Your task to perform on an android device: turn off translation in the chrome app Image 0: 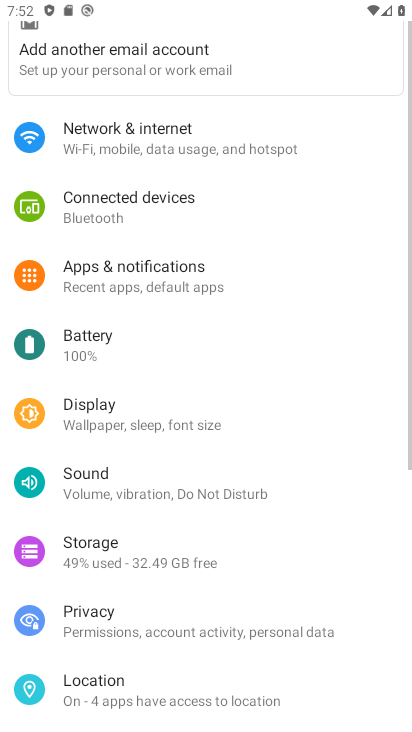
Step 0: press home button
Your task to perform on an android device: turn off translation in the chrome app Image 1: 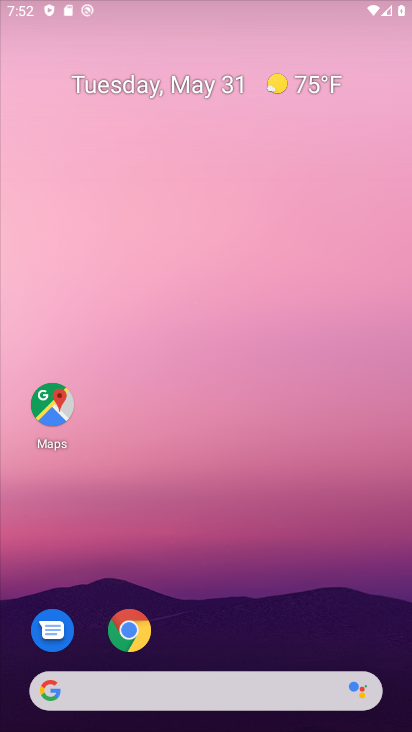
Step 1: drag from (209, 649) to (222, 401)
Your task to perform on an android device: turn off translation in the chrome app Image 2: 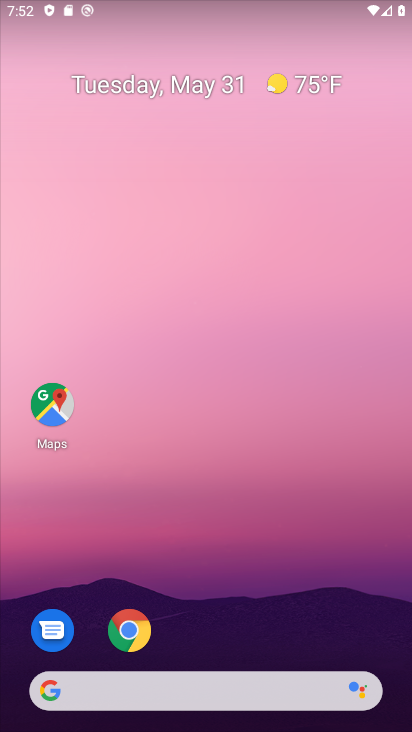
Step 2: drag from (197, 637) to (228, 201)
Your task to perform on an android device: turn off translation in the chrome app Image 3: 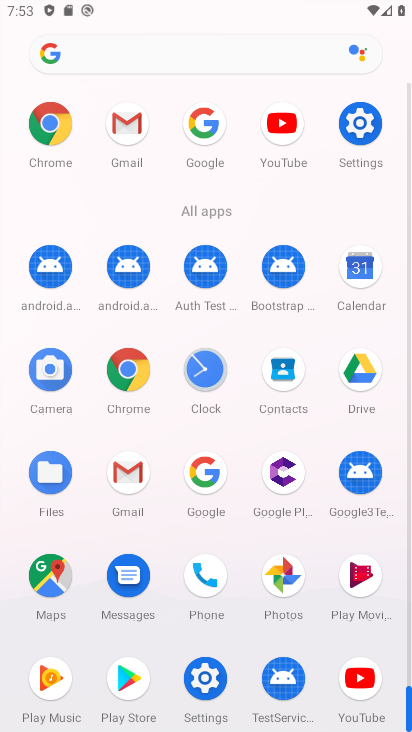
Step 3: click (144, 392)
Your task to perform on an android device: turn off translation in the chrome app Image 4: 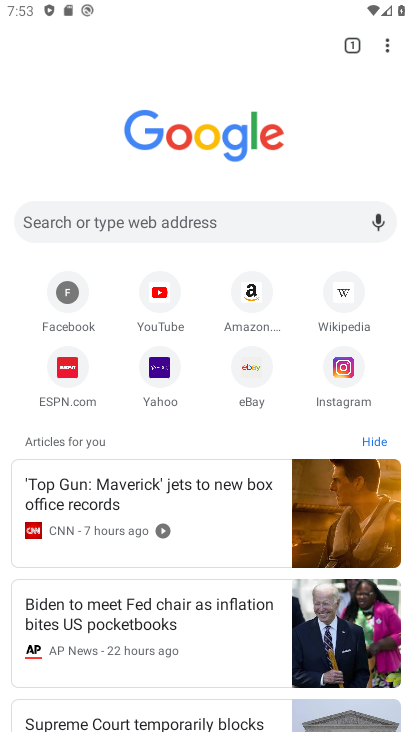
Step 4: click (388, 49)
Your task to perform on an android device: turn off translation in the chrome app Image 5: 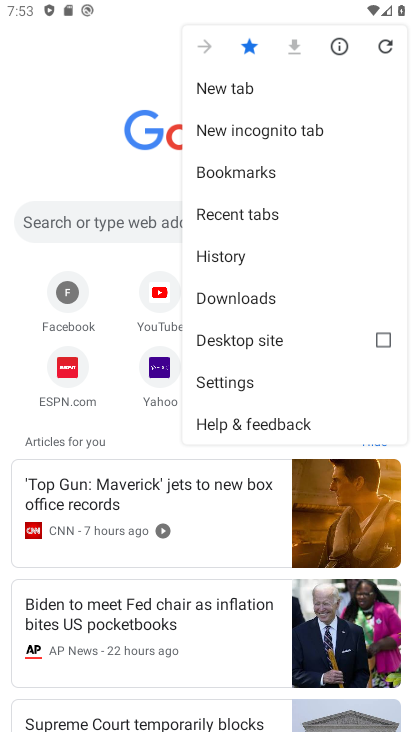
Step 5: task complete